Your task to perform on an android device: Open Reddit.com Image 0: 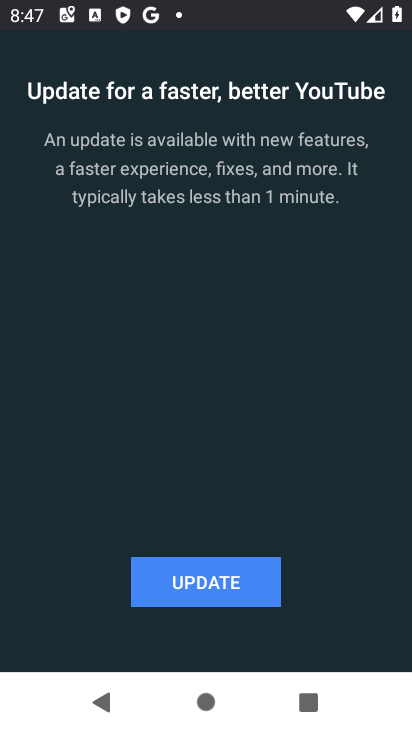
Step 0: press home button
Your task to perform on an android device: Open Reddit.com Image 1: 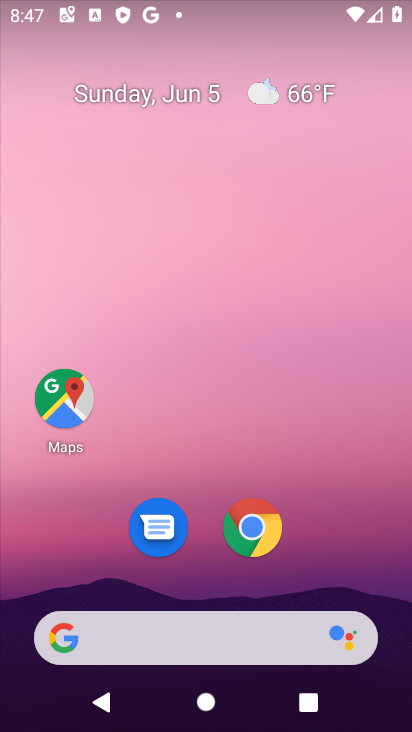
Step 1: drag from (197, 588) to (203, 186)
Your task to perform on an android device: Open Reddit.com Image 2: 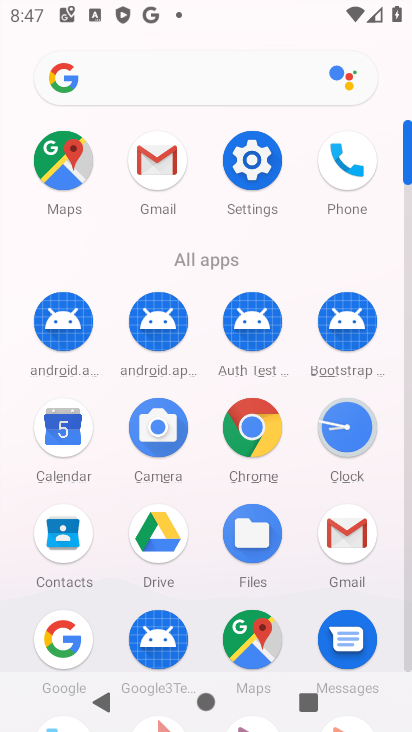
Step 2: drag from (284, 602) to (332, 126)
Your task to perform on an android device: Open Reddit.com Image 3: 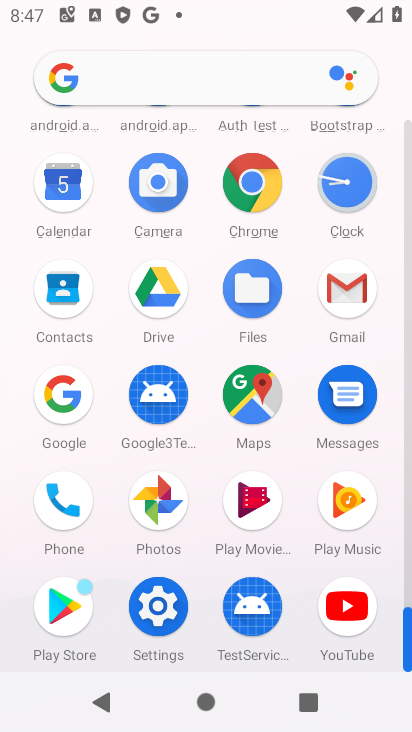
Step 3: click (260, 180)
Your task to perform on an android device: Open Reddit.com Image 4: 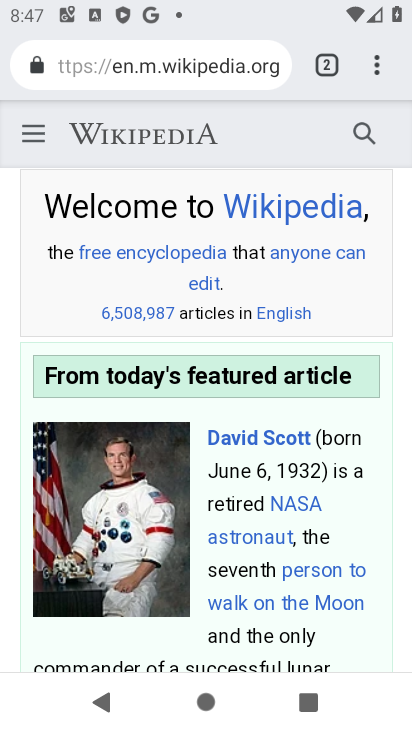
Step 4: click (128, 69)
Your task to perform on an android device: Open Reddit.com Image 5: 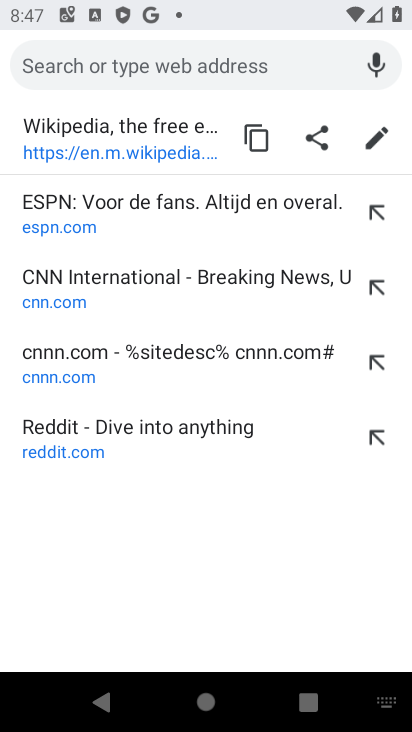
Step 5: click (262, 444)
Your task to perform on an android device: Open Reddit.com Image 6: 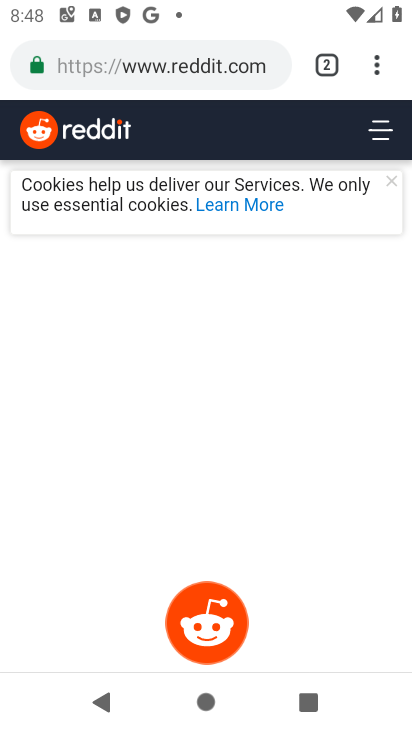
Step 6: task complete